Your task to perform on an android device: turn on improve location accuracy Image 0: 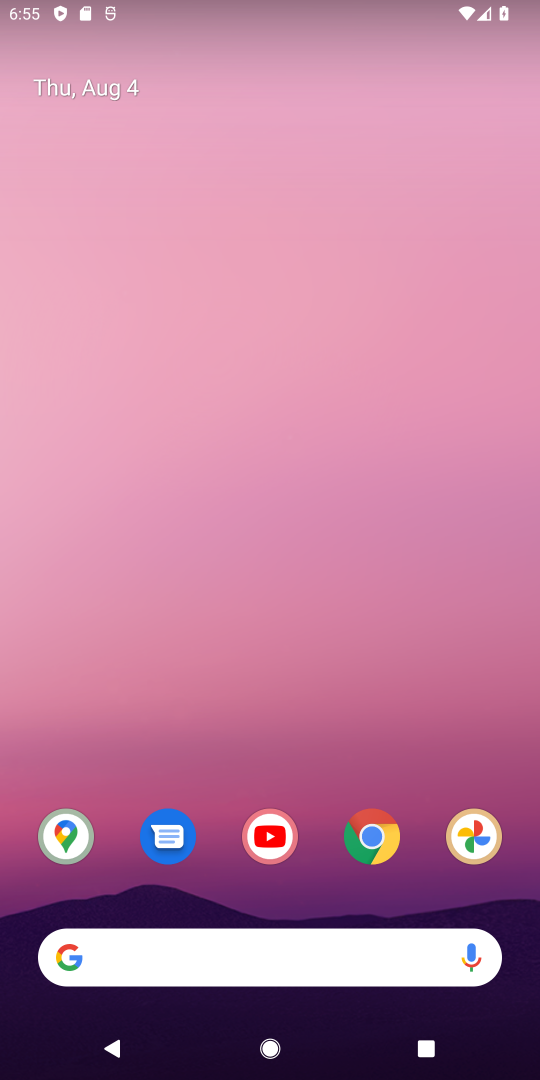
Step 0: drag from (216, 911) to (345, 134)
Your task to perform on an android device: turn on improve location accuracy Image 1: 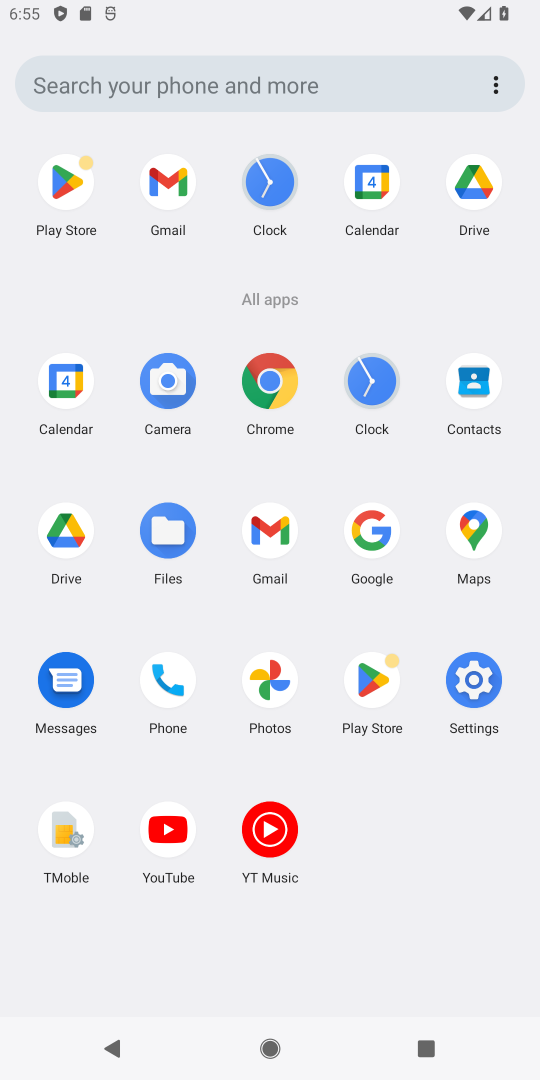
Step 1: click (471, 685)
Your task to perform on an android device: turn on improve location accuracy Image 2: 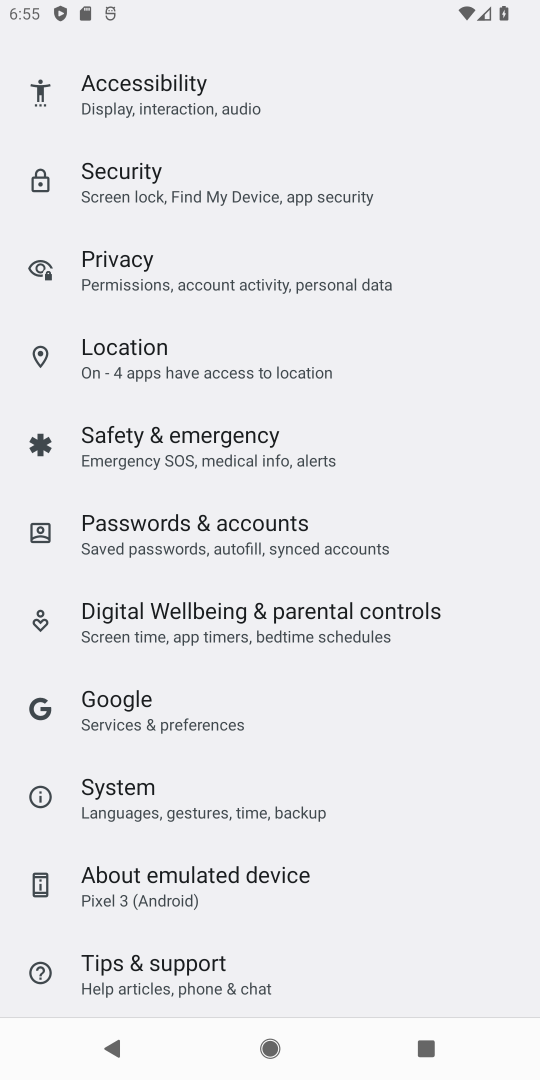
Step 2: click (224, 340)
Your task to perform on an android device: turn on improve location accuracy Image 3: 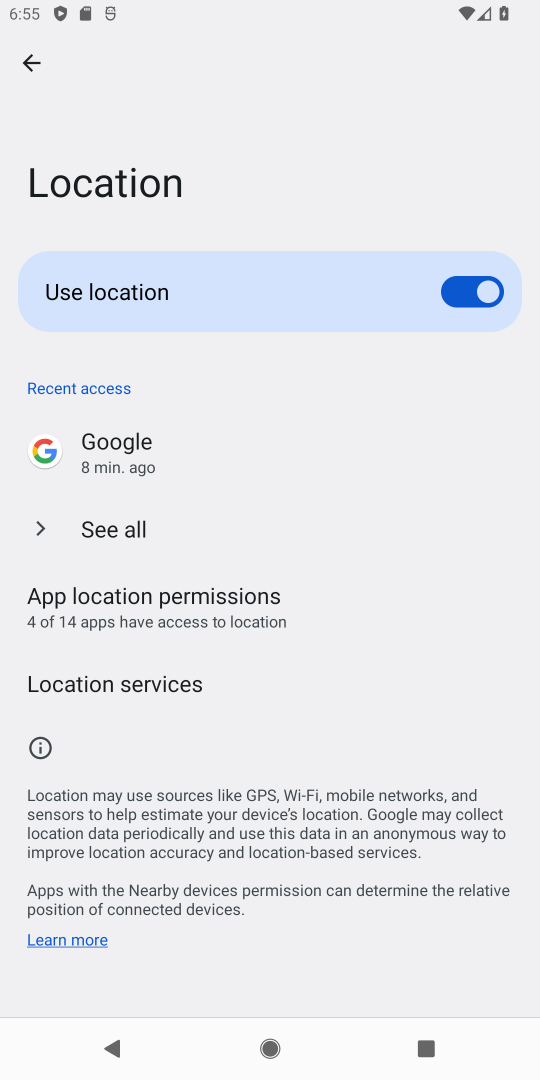
Step 3: click (225, 609)
Your task to perform on an android device: turn on improve location accuracy Image 4: 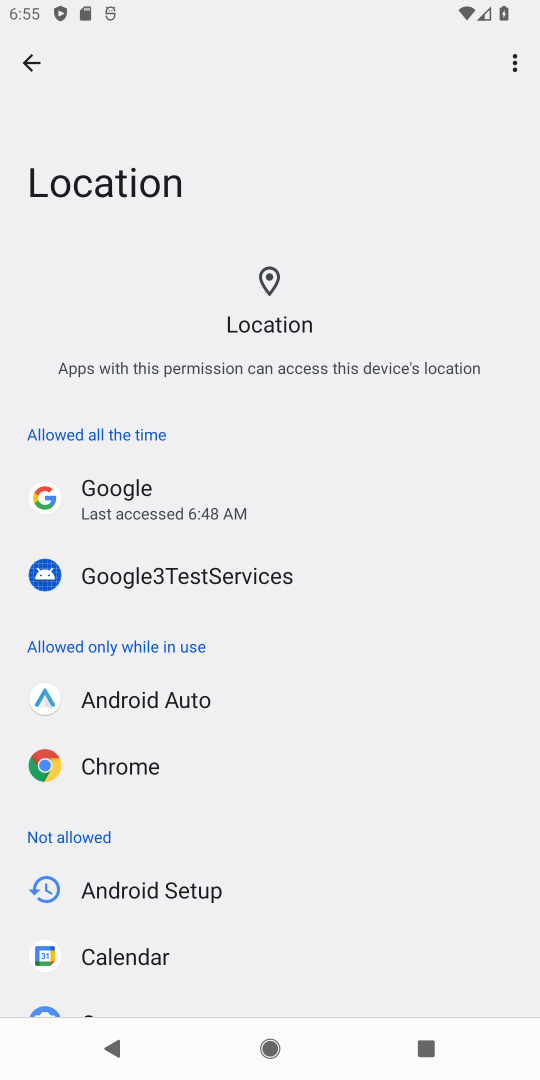
Step 4: drag from (164, 901) to (313, 143)
Your task to perform on an android device: turn on improve location accuracy Image 5: 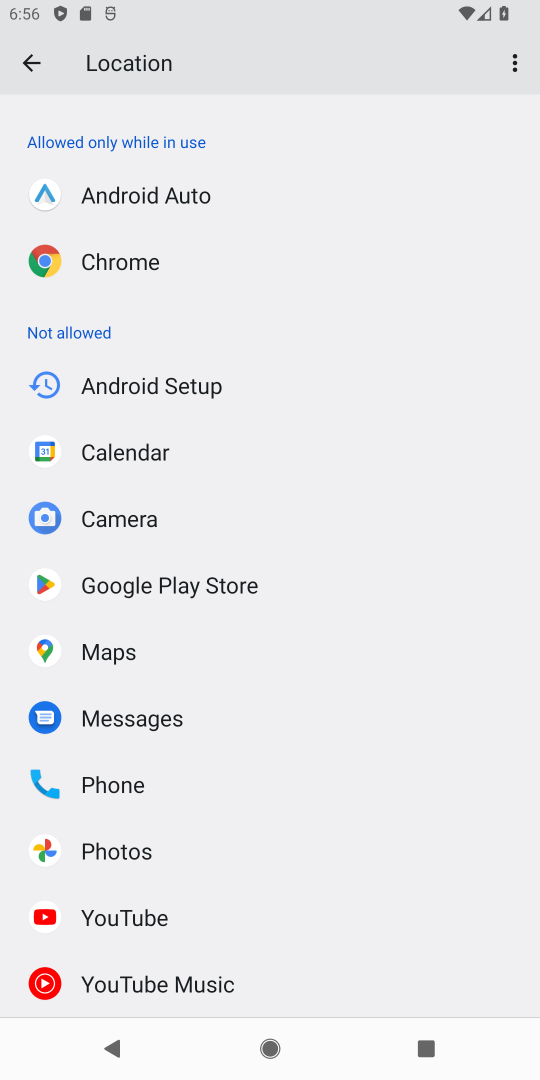
Step 5: click (17, 45)
Your task to perform on an android device: turn on improve location accuracy Image 6: 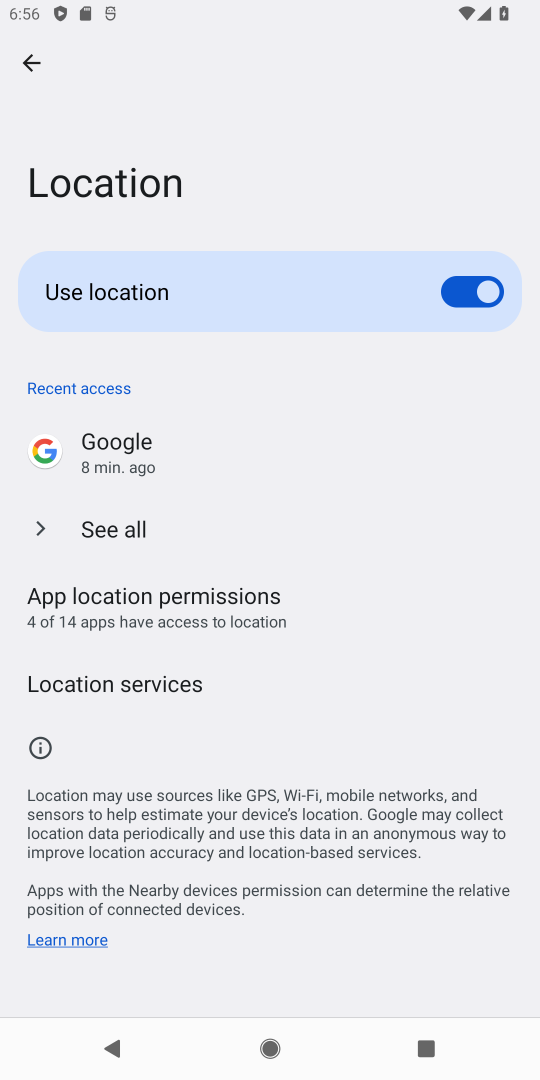
Step 6: click (142, 686)
Your task to perform on an android device: turn on improve location accuracy Image 7: 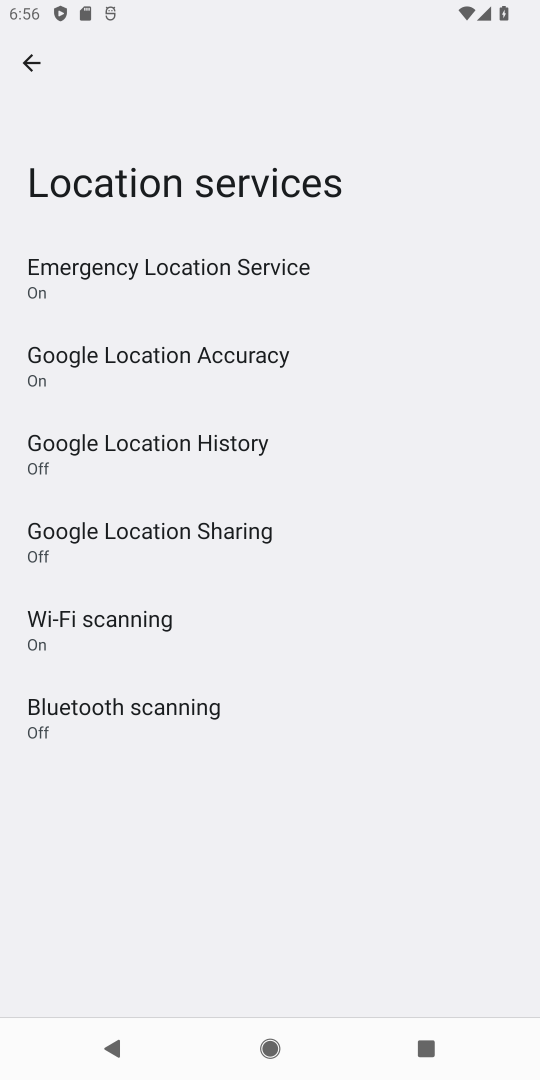
Step 7: click (170, 351)
Your task to perform on an android device: turn on improve location accuracy Image 8: 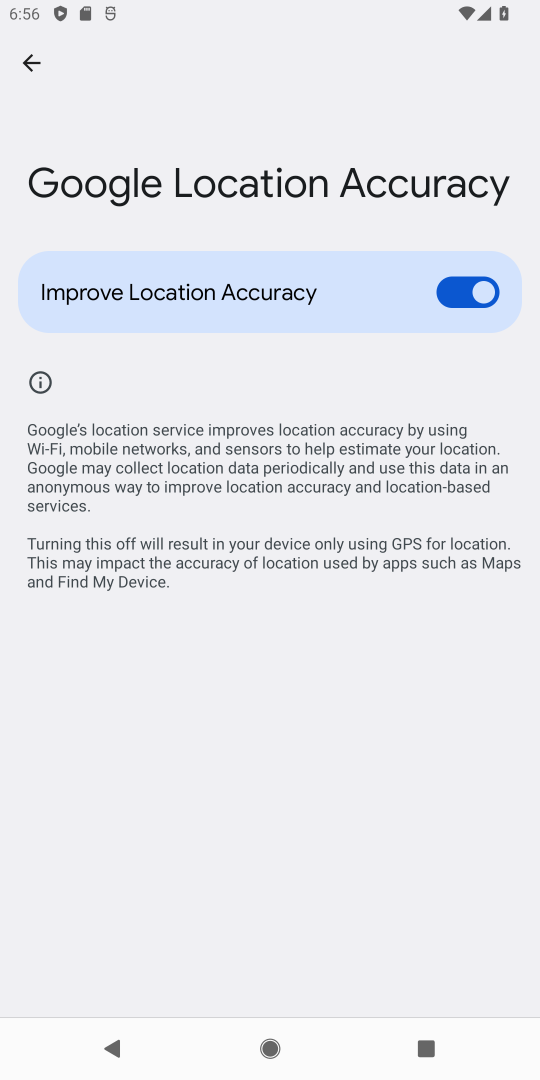
Step 8: task complete